Your task to perform on an android device: toggle priority inbox in the gmail app Image 0: 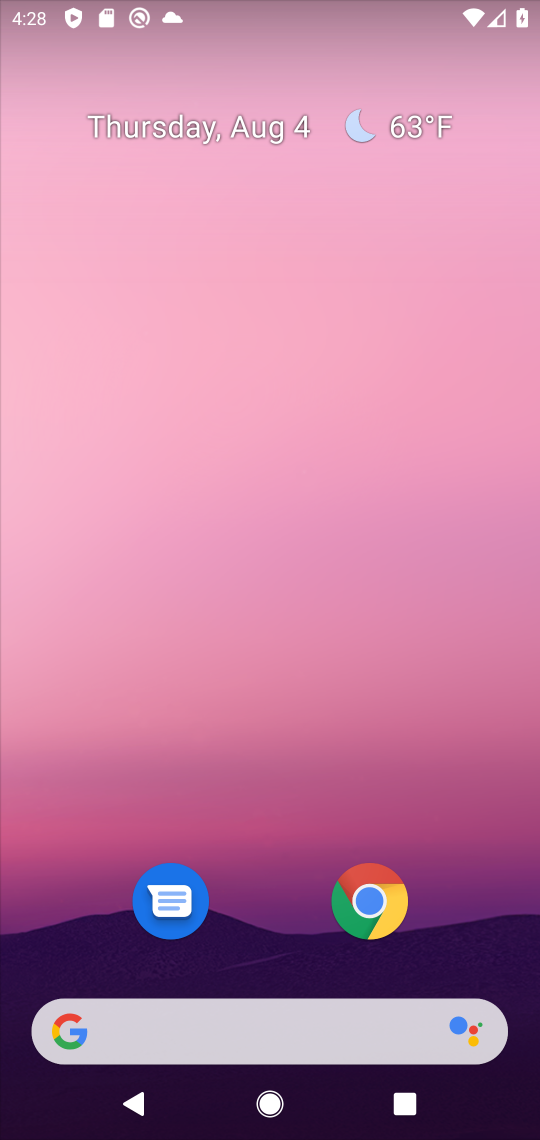
Step 0: drag from (207, 702) to (422, 8)
Your task to perform on an android device: toggle priority inbox in the gmail app Image 1: 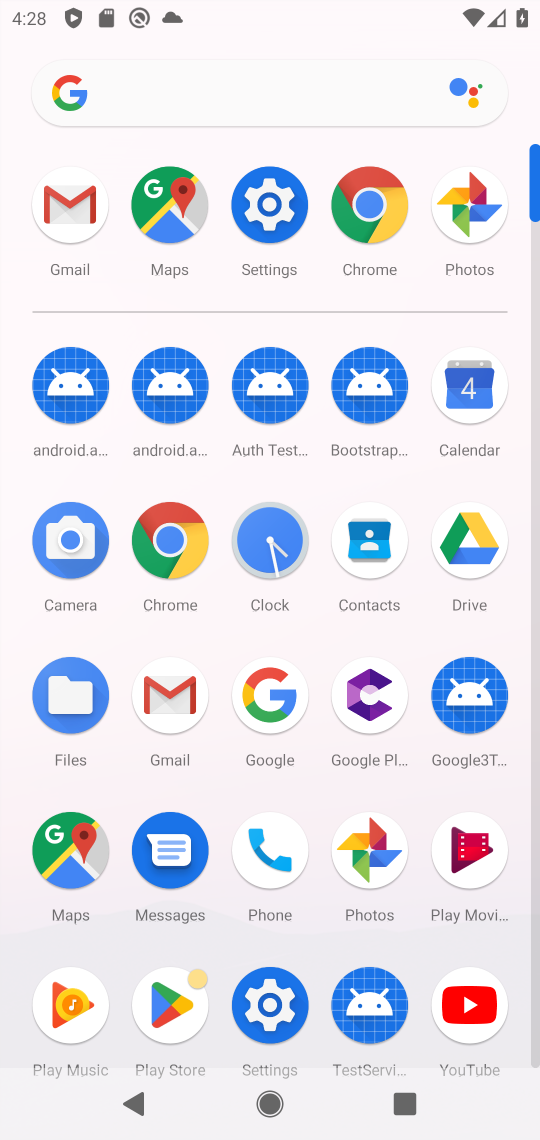
Step 1: click (159, 702)
Your task to perform on an android device: toggle priority inbox in the gmail app Image 2: 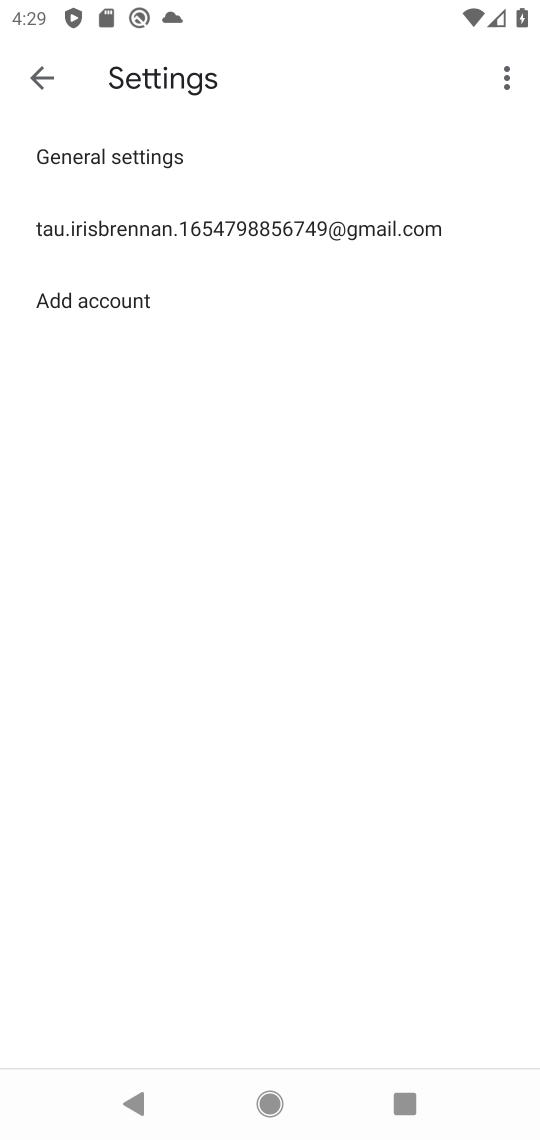
Step 2: click (52, 76)
Your task to perform on an android device: toggle priority inbox in the gmail app Image 3: 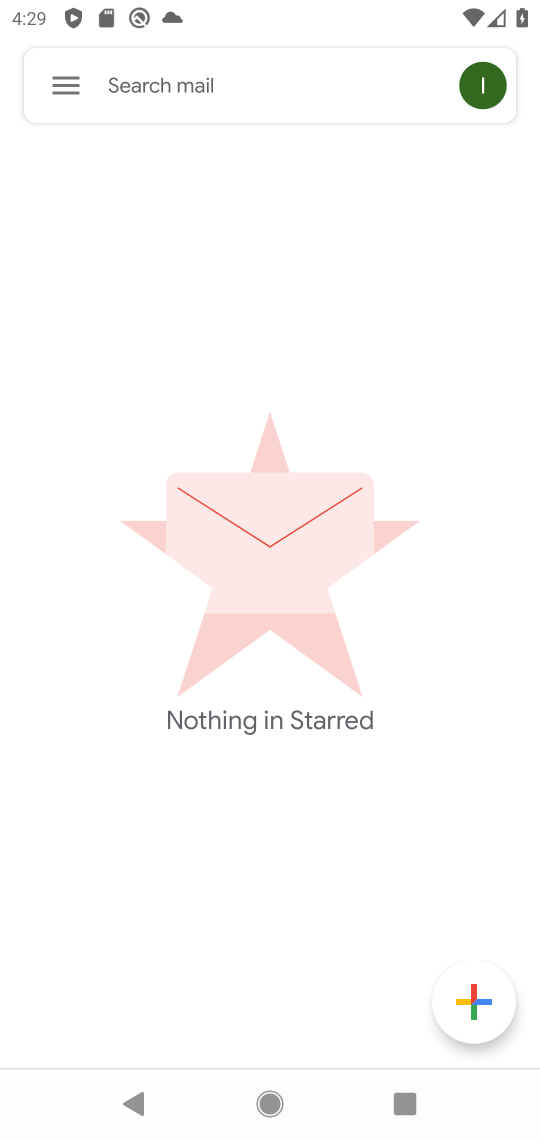
Step 3: click (46, 76)
Your task to perform on an android device: toggle priority inbox in the gmail app Image 4: 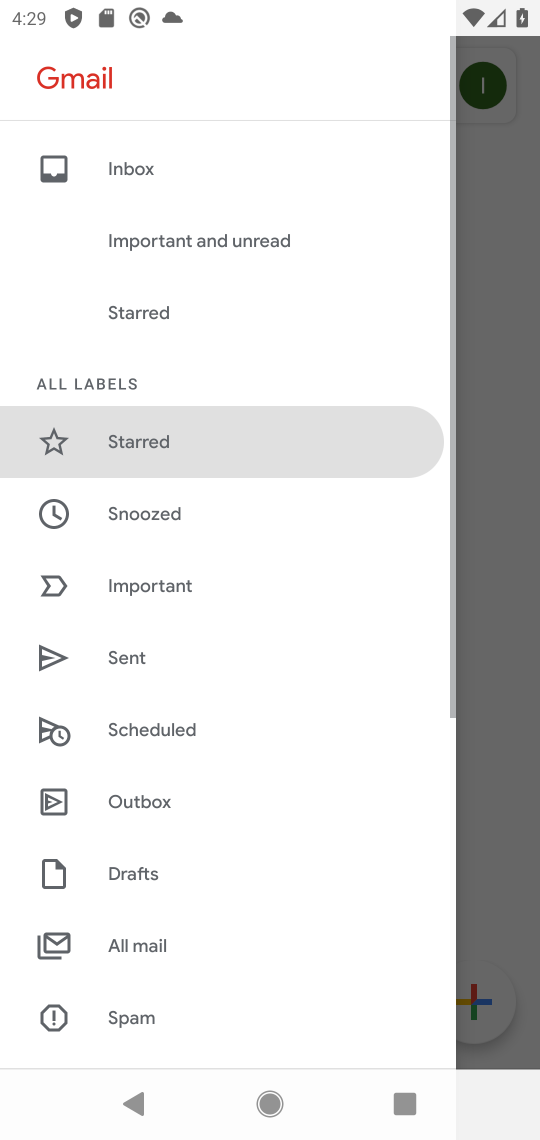
Step 4: drag from (230, 905) to (360, 200)
Your task to perform on an android device: toggle priority inbox in the gmail app Image 5: 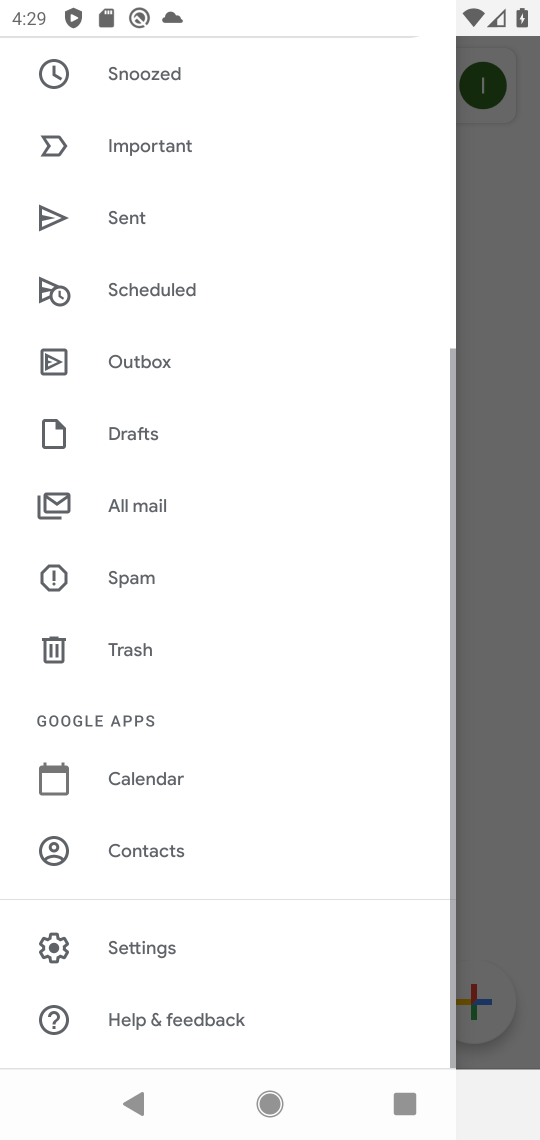
Step 5: click (143, 936)
Your task to perform on an android device: toggle priority inbox in the gmail app Image 6: 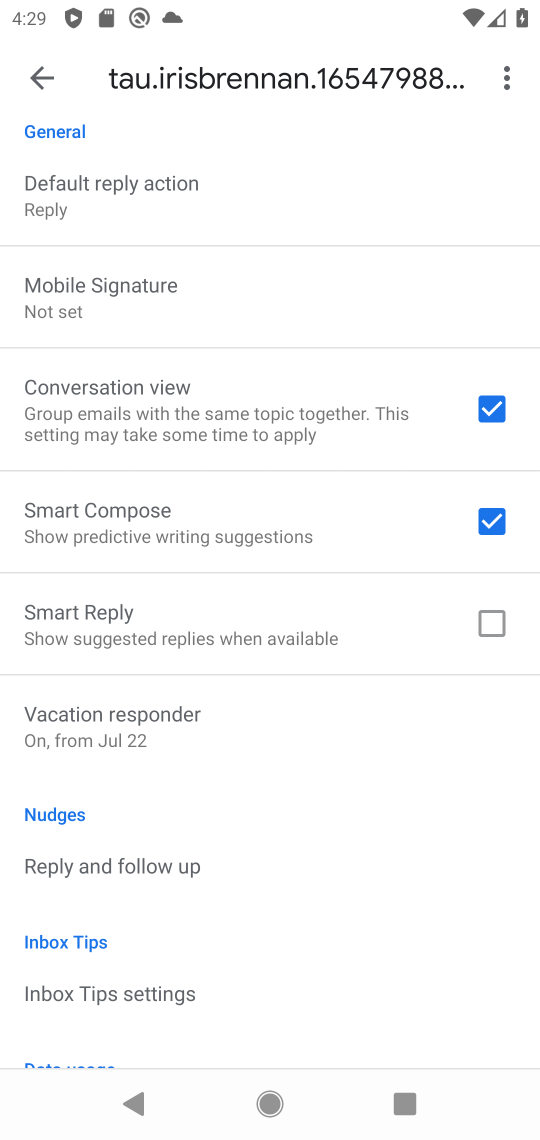
Step 6: drag from (195, 246) to (209, 902)
Your task to perform on an android device: toggle priority inbox in the gmail app Image 7: 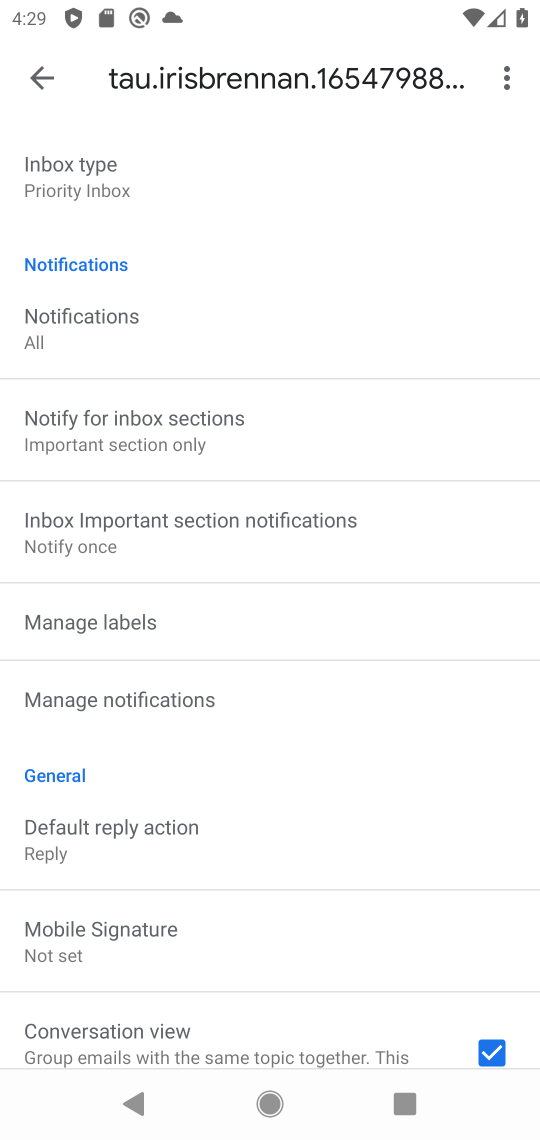
Step 7: click (110, 171)
Your task to perform on an android device: toggle priority inbox in the gmail app Image 8: 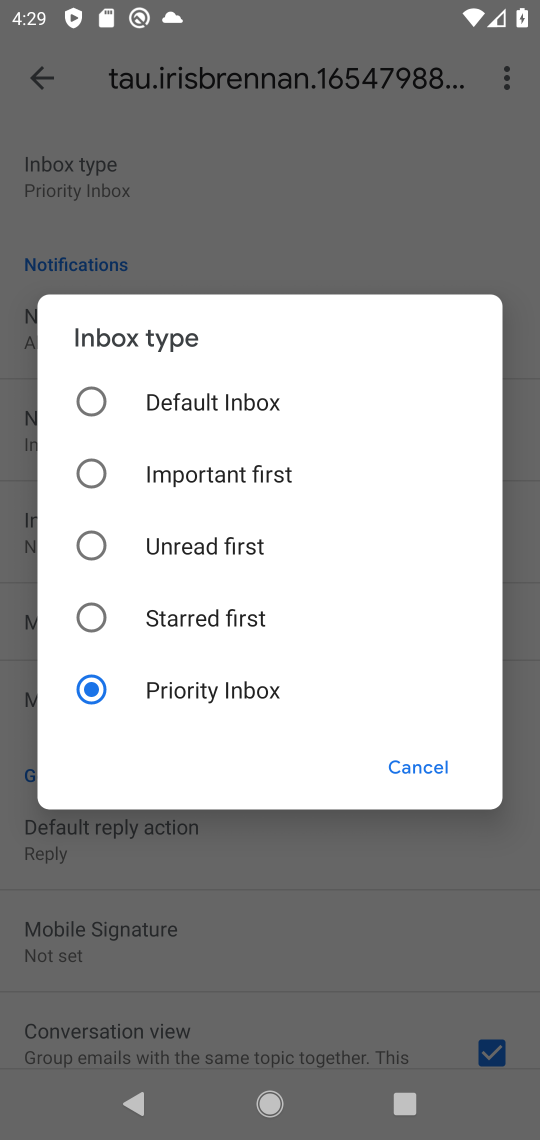
Step 8: task complete